Your task to perform on an android device: What's the weather today? Image 0: 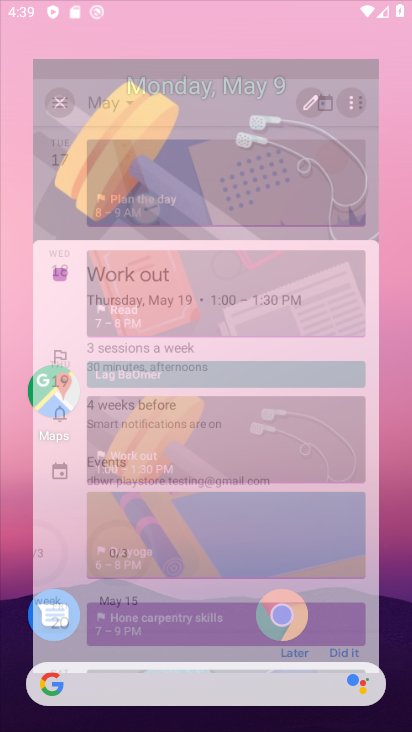
Step 0: task impossible